Your task to perform on an android device: Open internet settings Image 0: 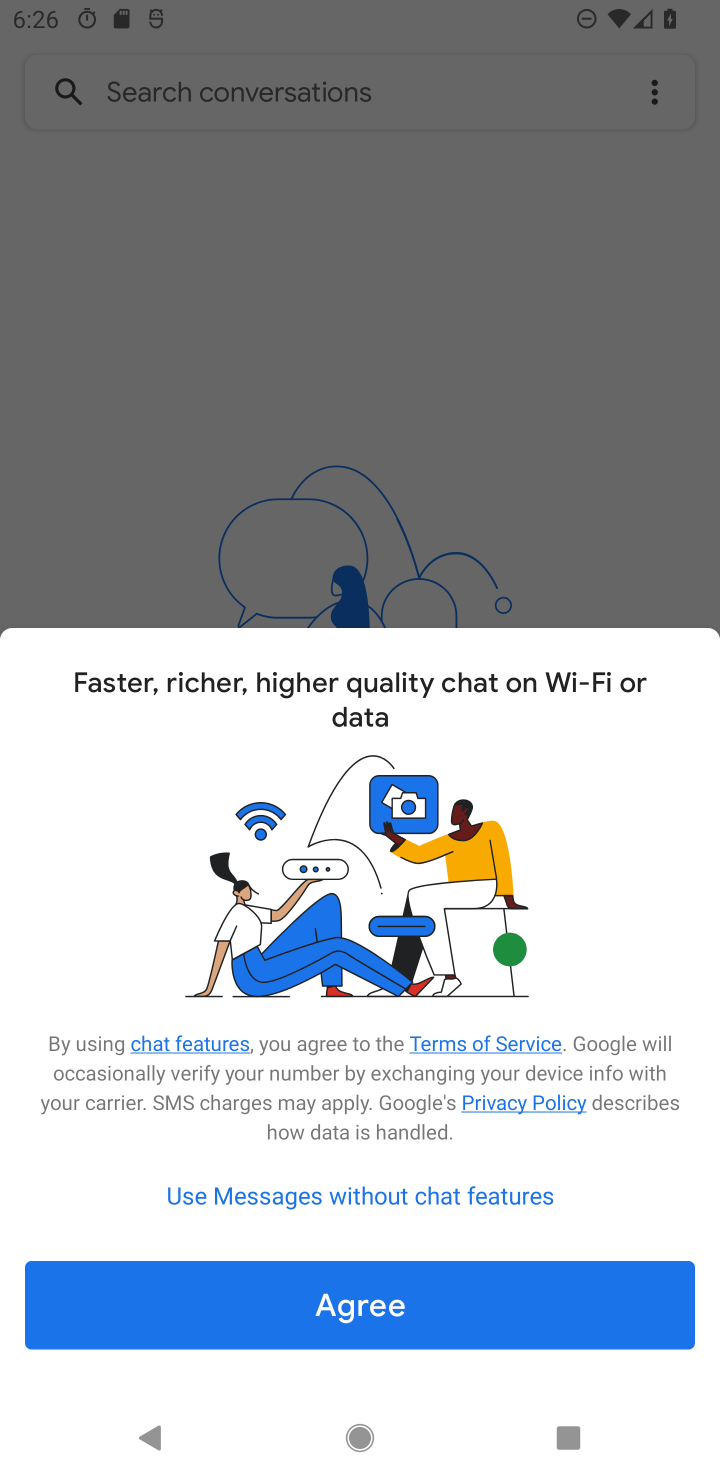
Step 0: drag from (392, 1083) to (389, 552)
Your task to perform on an android device: Open internet settings Image 1: 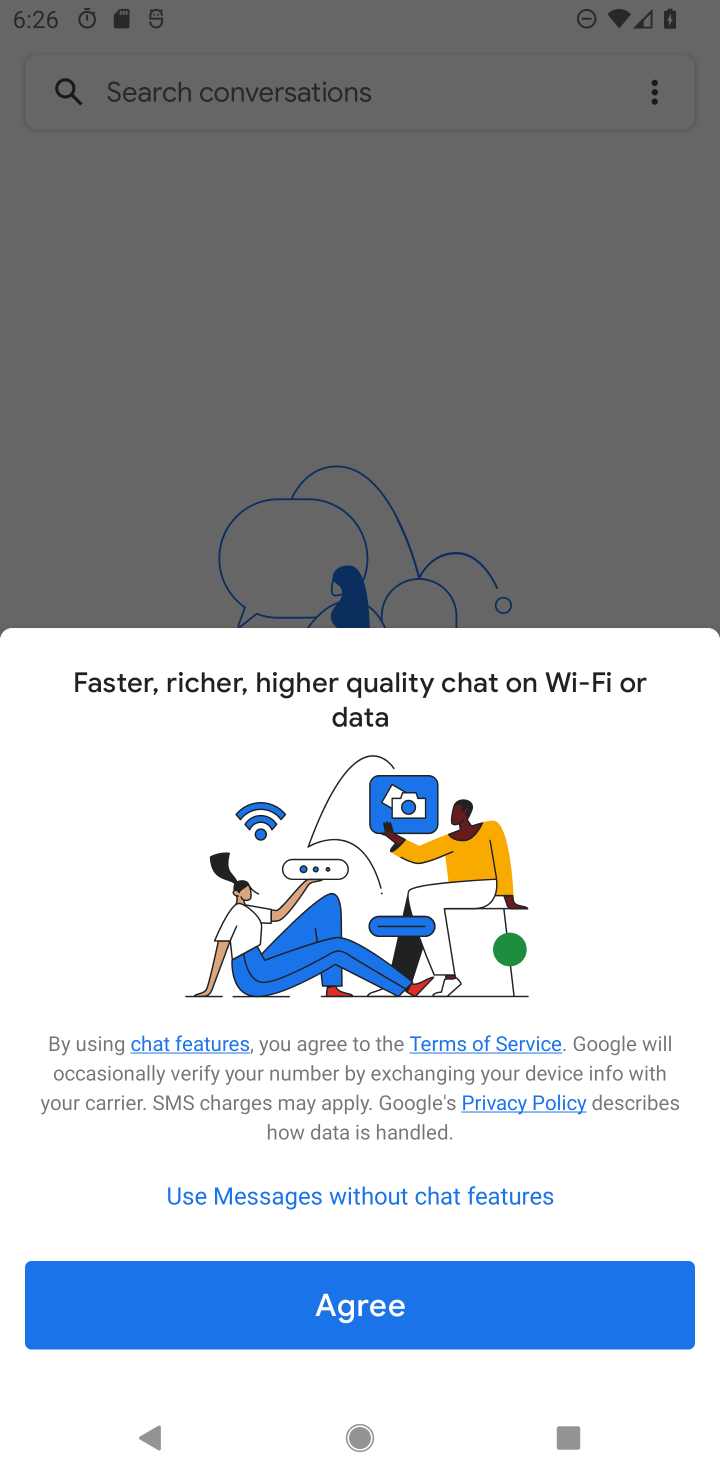
Step 1: drag from (371, 889) to (442, 521)
Your task to perform on an android device: Open internet settings Image 2: 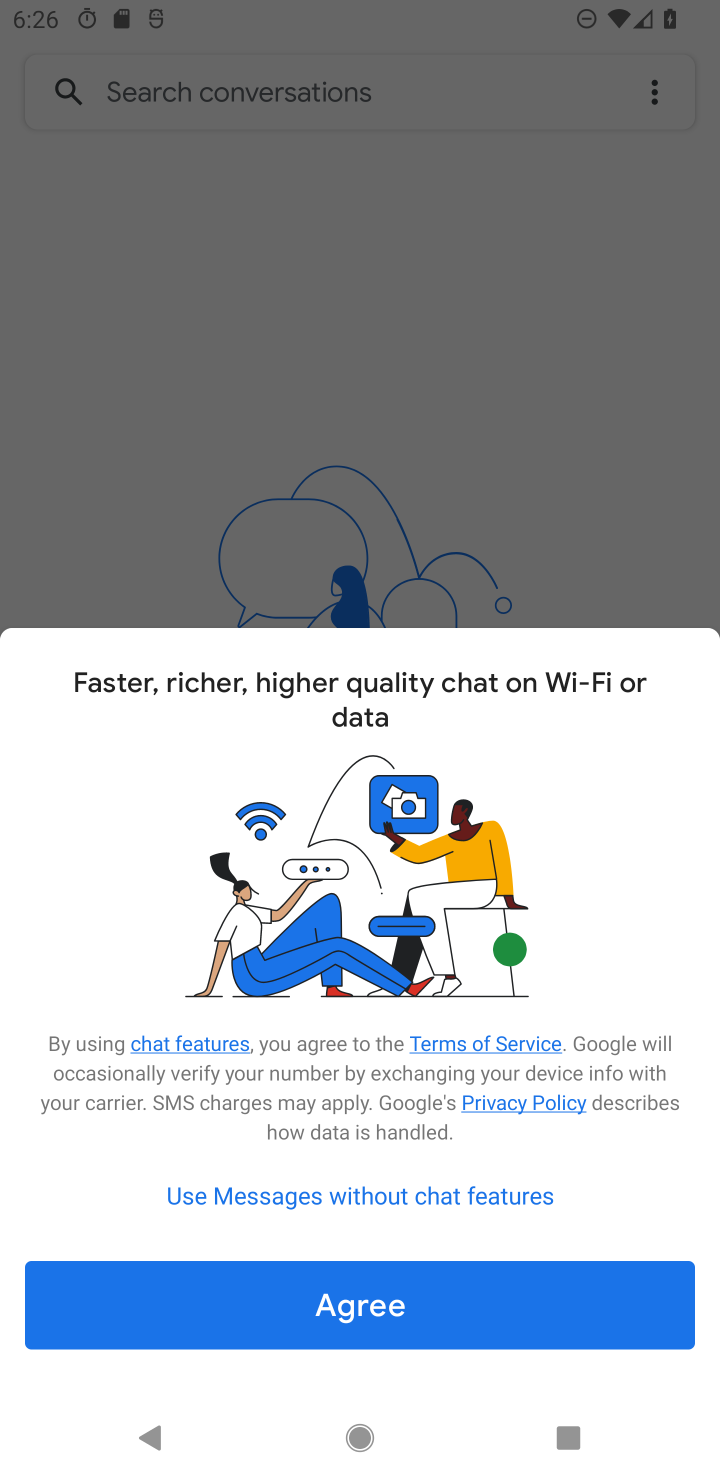
Step 2: drag from (347, 691) to (366, 158)
Your task to perform on an android device: Open internet settings Image 3: 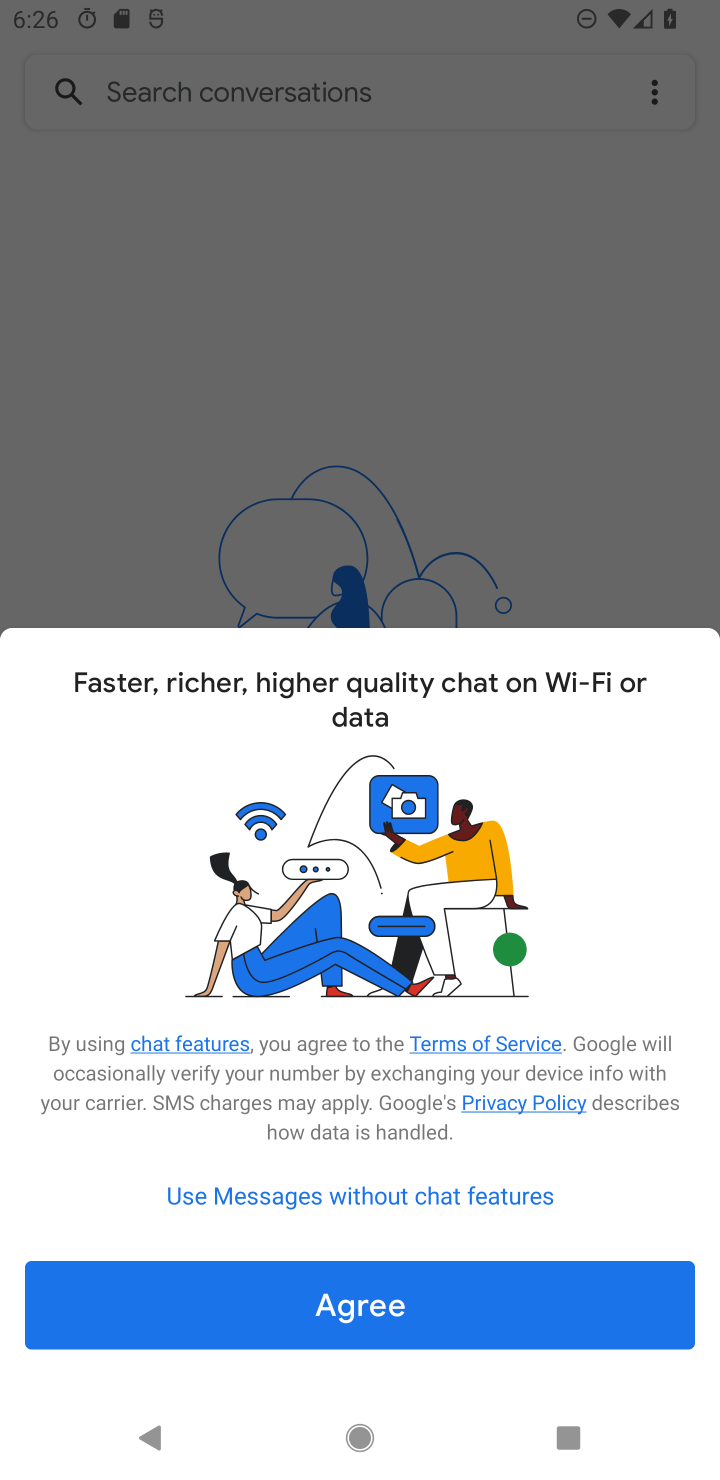
Step 3: press home button
Your task to perform on an android device: Open internet settings Image 4: 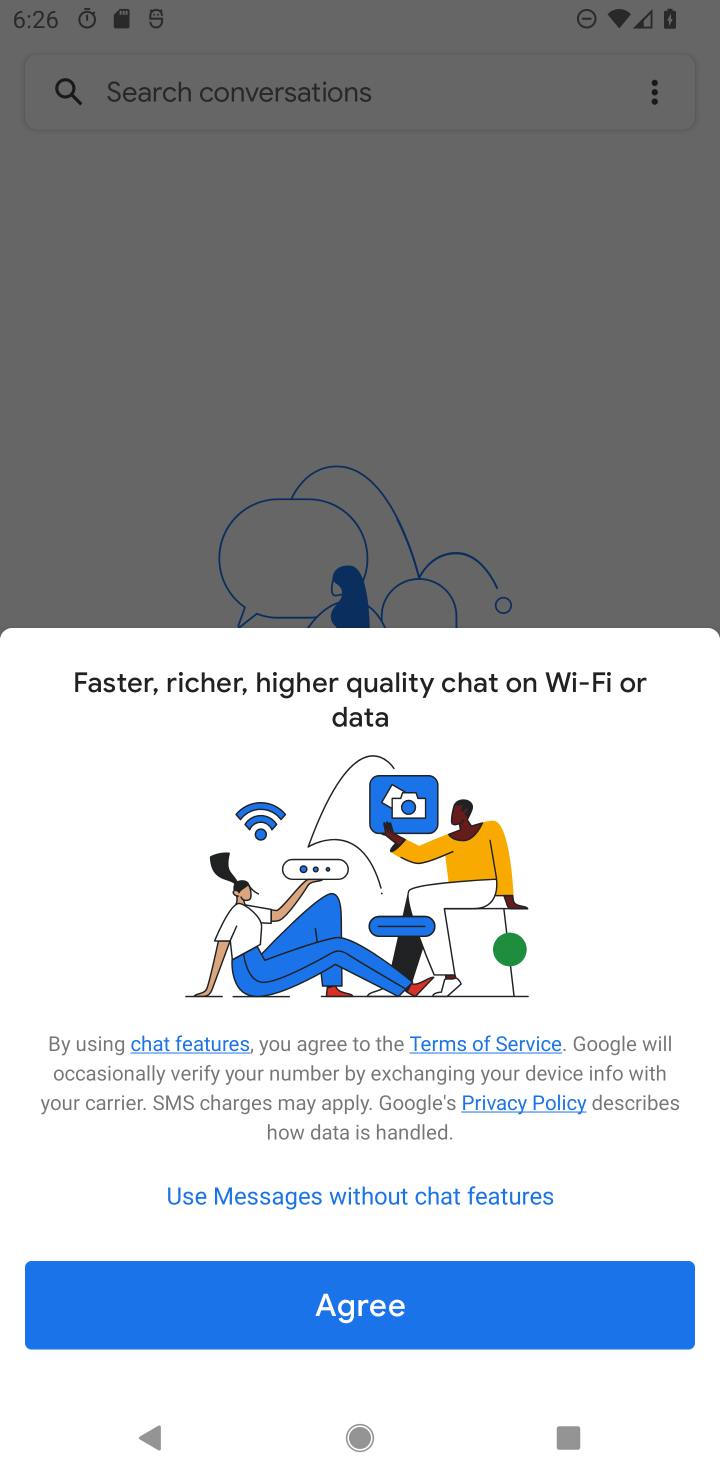
Step 4: press home button
Your task to perform on an android device: Open internet settings Image 5: 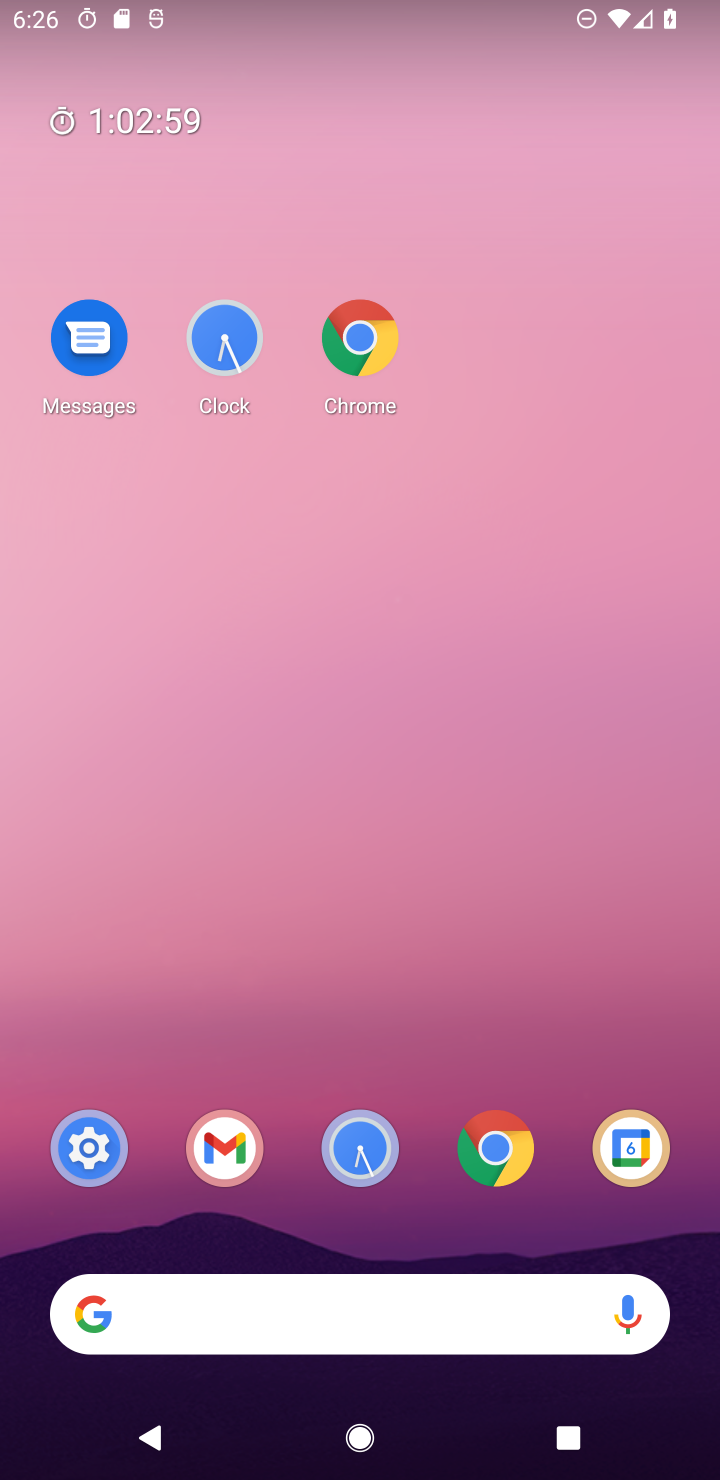
Step 5: click (449, 401)
Your task to perform on an android device: Open internet settings Image 6: 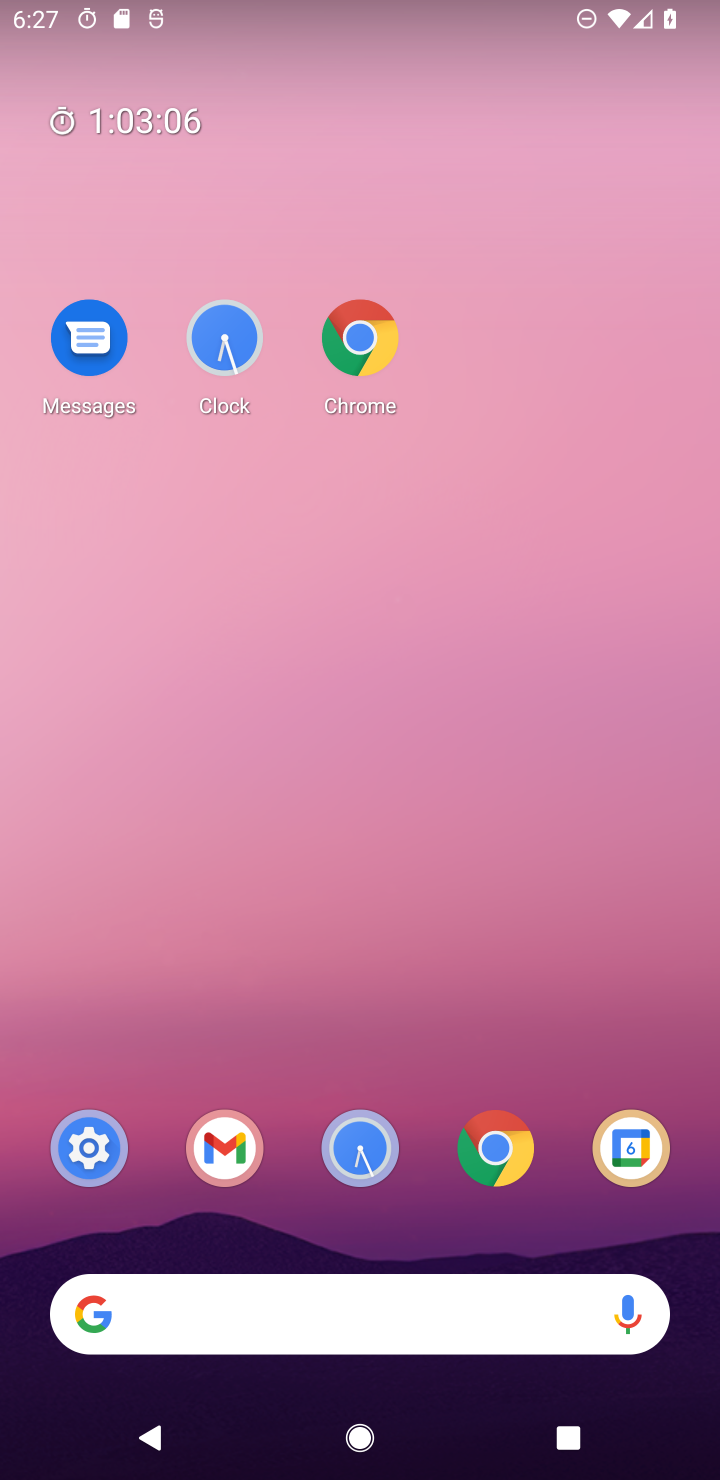
Step 6: drag from (425, 1191) to (465, 353)
Your task to perform on an android device: Open internet settings Image 7: 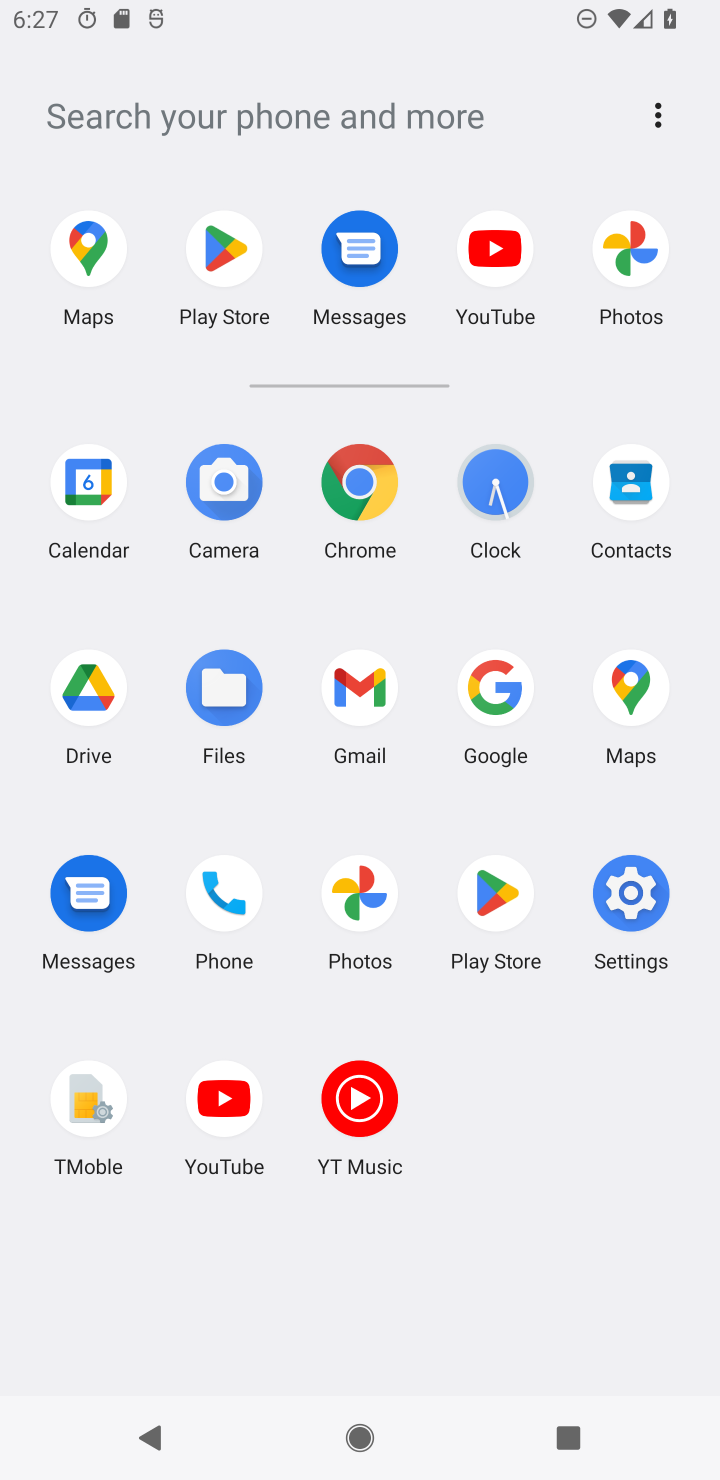
Step 7: drag from (394, 1079) to (423, 543)
Your task to perform on an android device: Open internet settings Image 8: 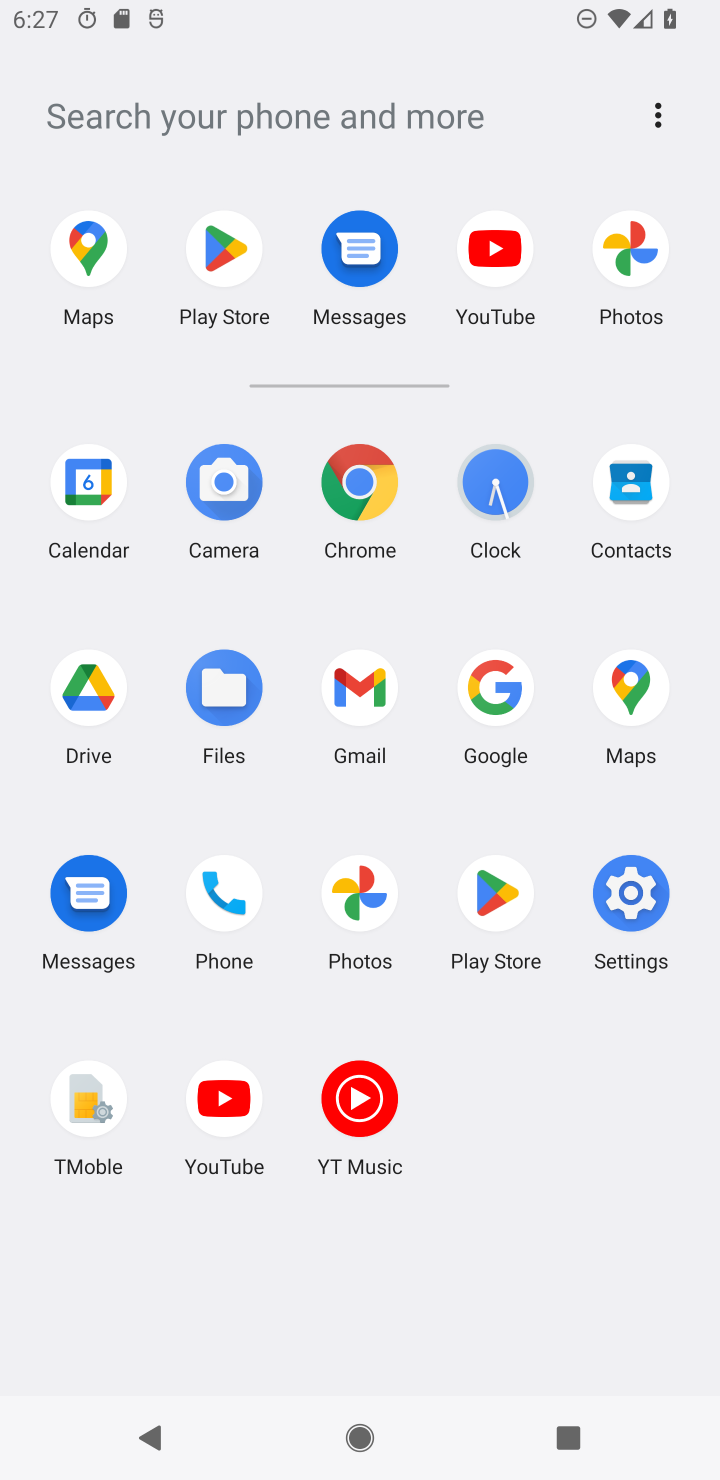
Step 8: click (617, 882)
Your task to perform on an android device: Open internet settings Image 9: 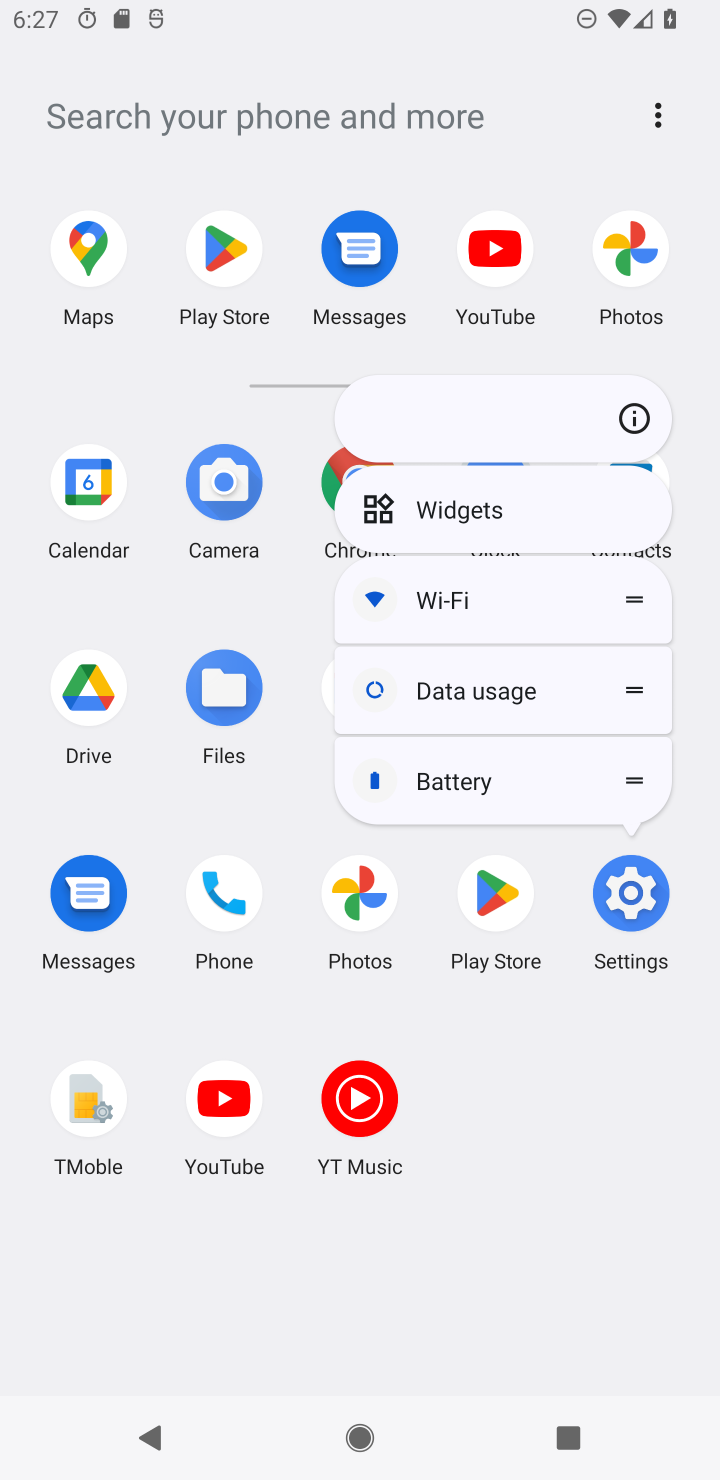
Step 9: click (629, 409)
Your task to perform on an android device: Open internet settings Image 10: 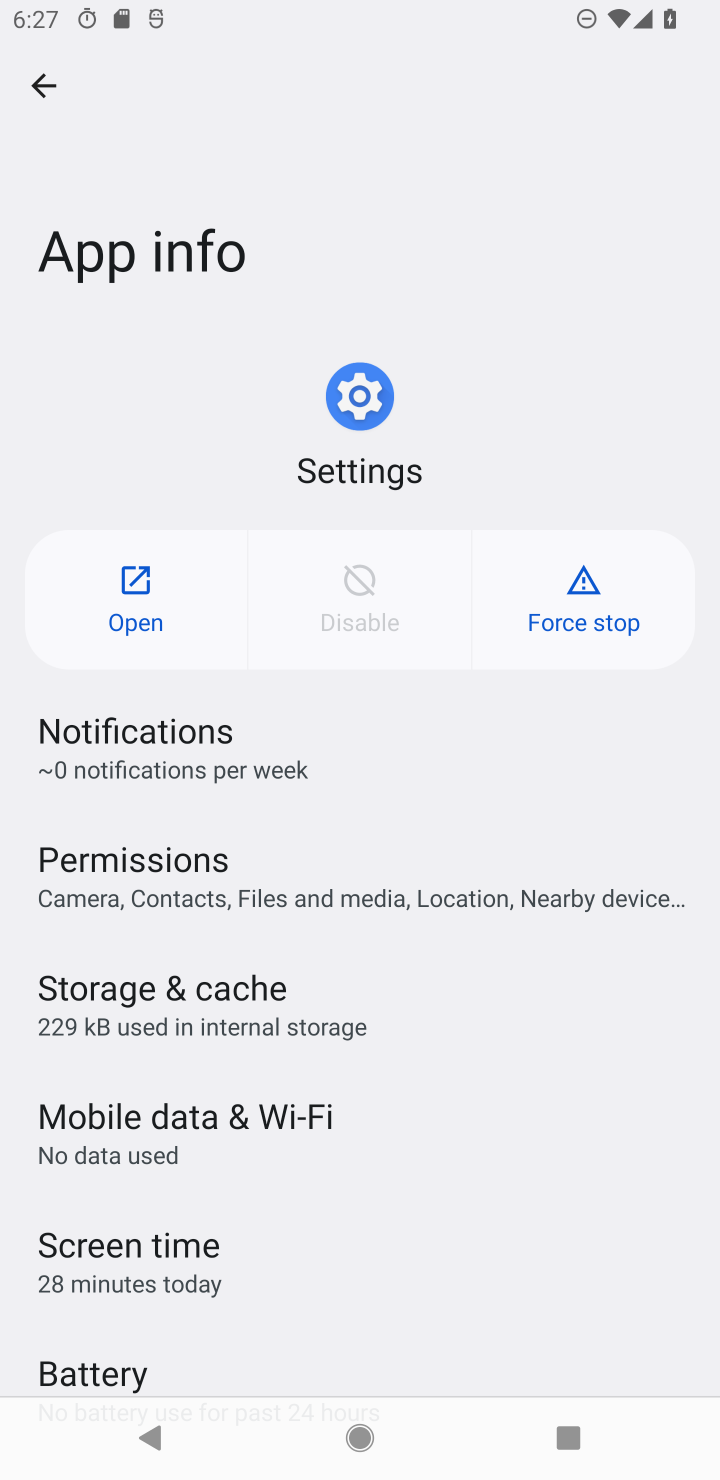
Step 10: click (129, 569)
Your task to perform on an android device: Open internet settings Image 11: 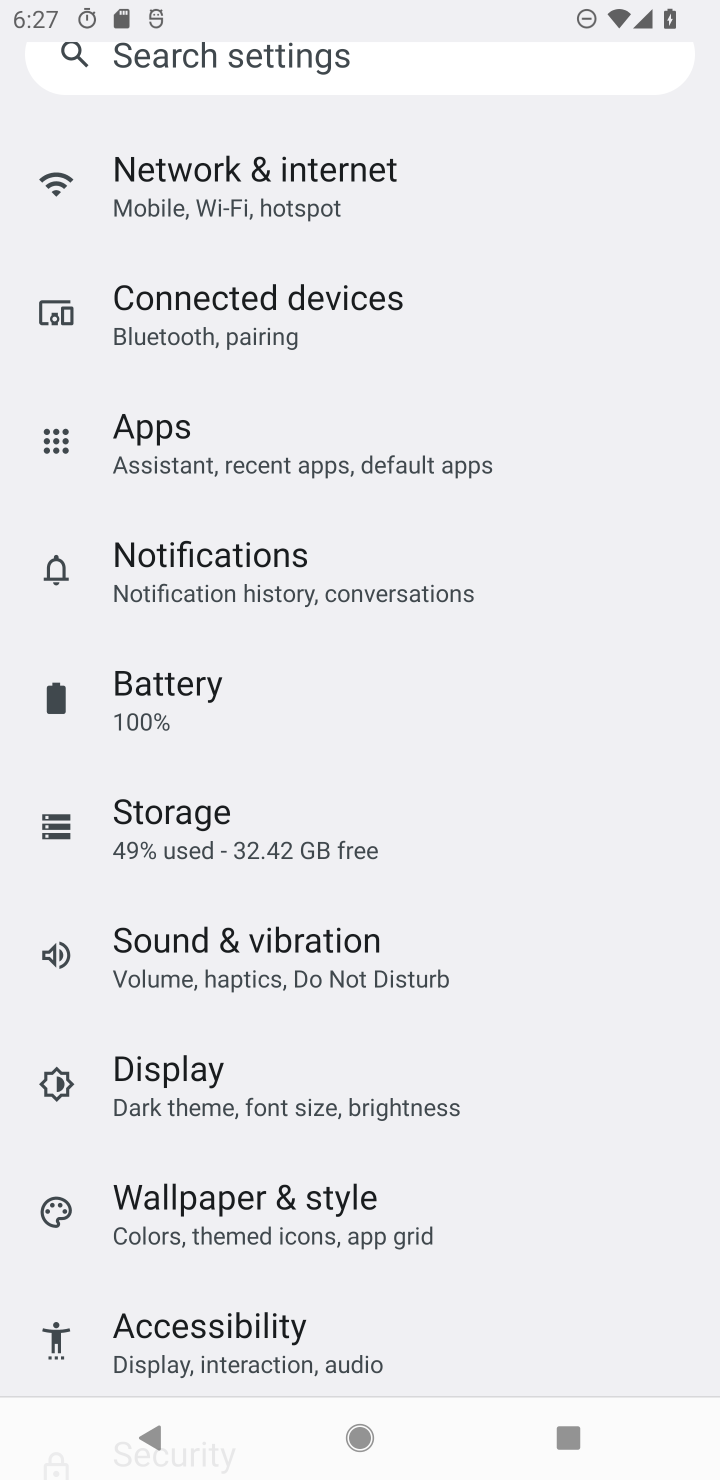
Step 11: click (289, 189)
Your task to perform on an android device: Open internet settings Image 12: 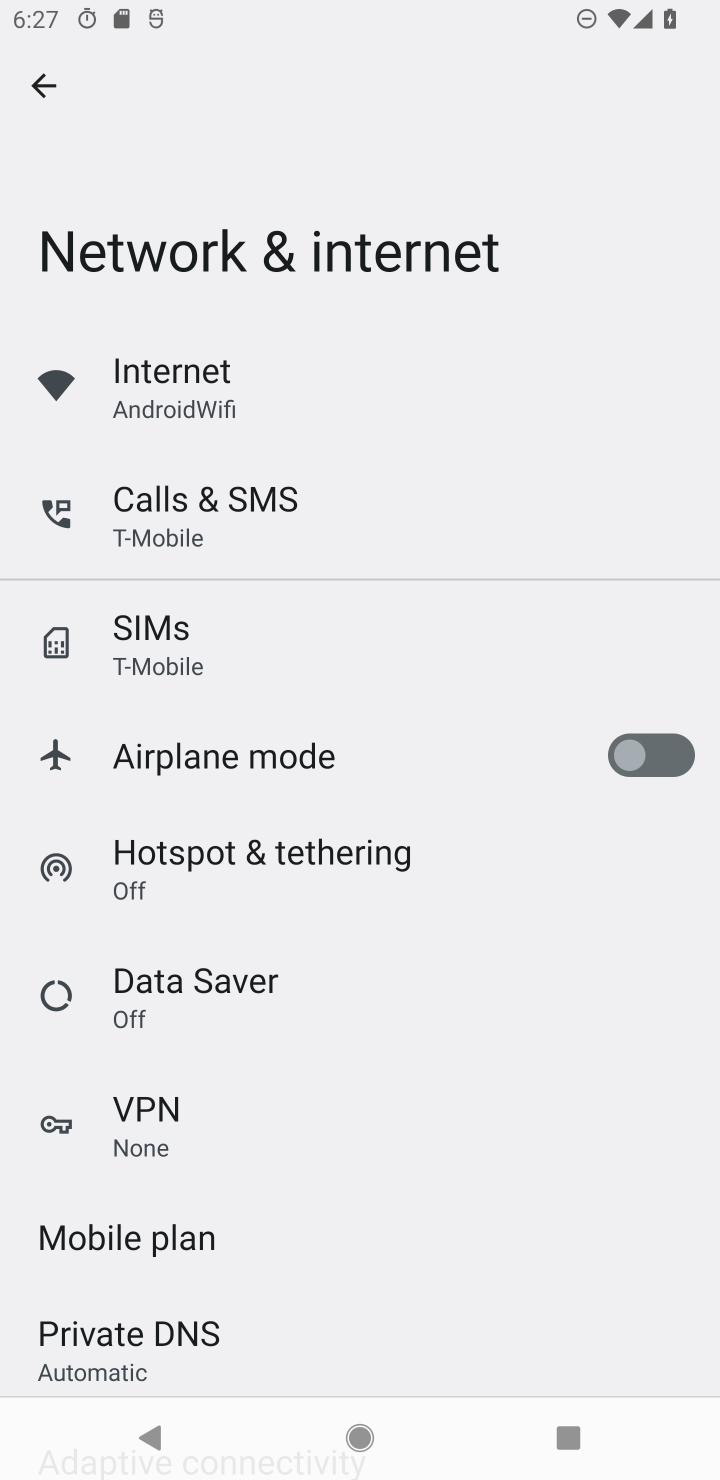
Step 12: drag from (417, 1029) to (395, 377)
Your task to perform on an android device: Open internet settings Image 13: 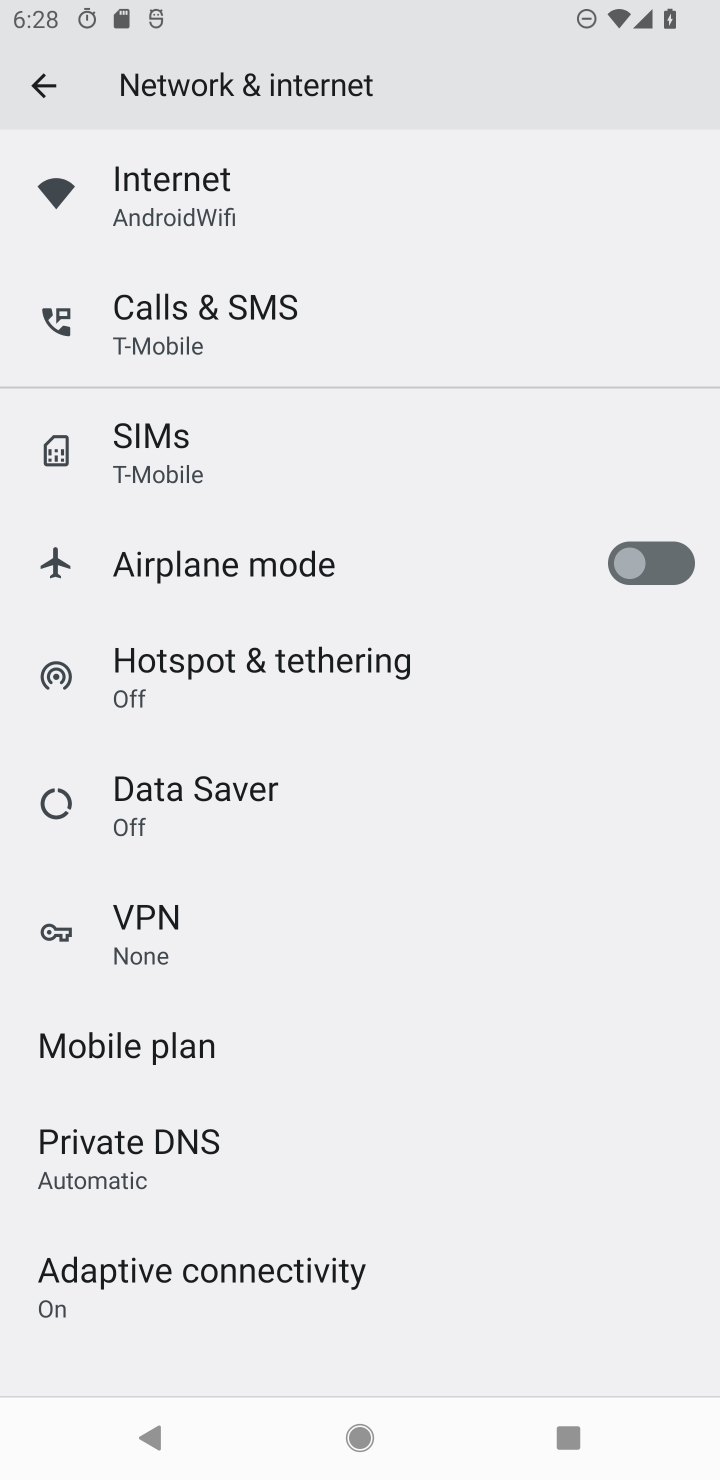
Step 13: drag from (454, 1050) to (382, 1443)
Your task to perform on an android device: Open internet settings Image 14: 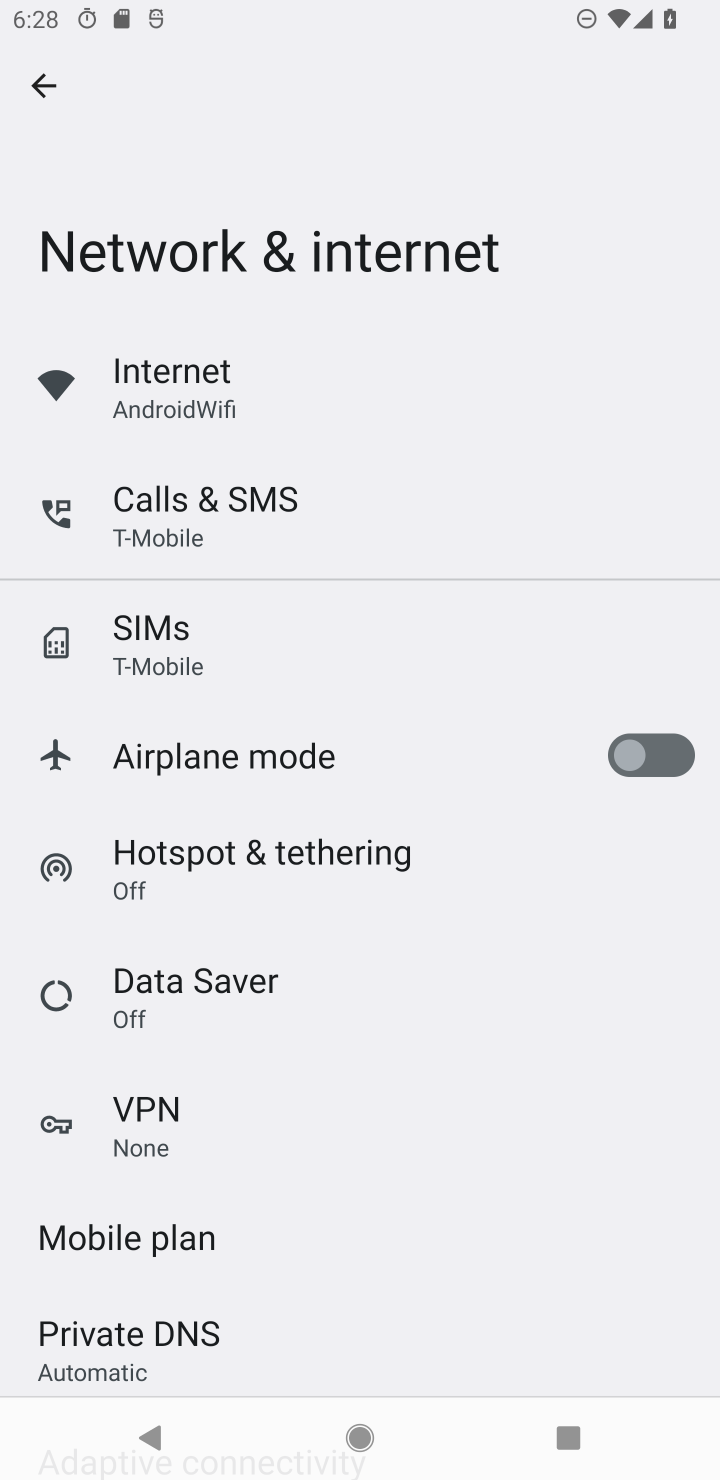
Step 14: click (193, 190)
Your task to perform on an android device: Open internet settings Image 15: 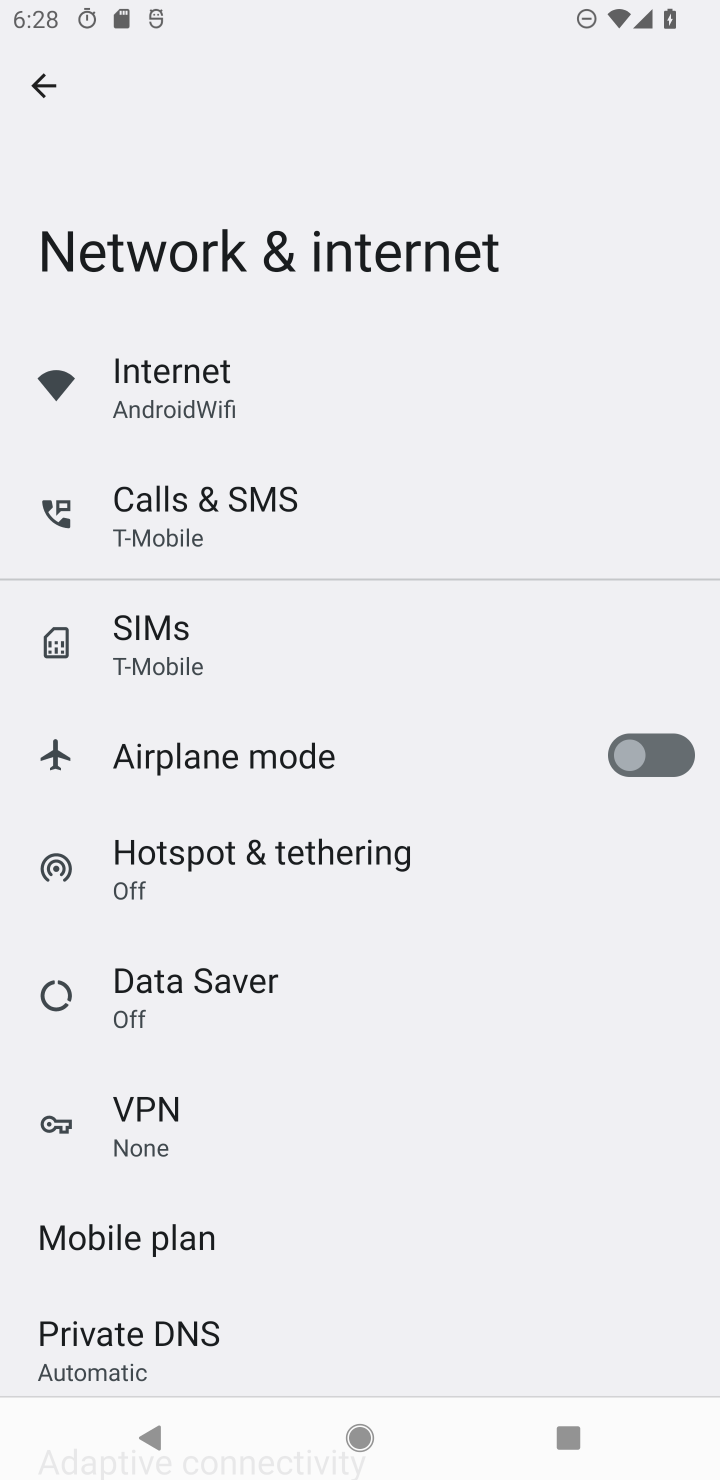
Step 15: click (250, 393)
Your task to perform on an android device: Open internet settings Image 16: 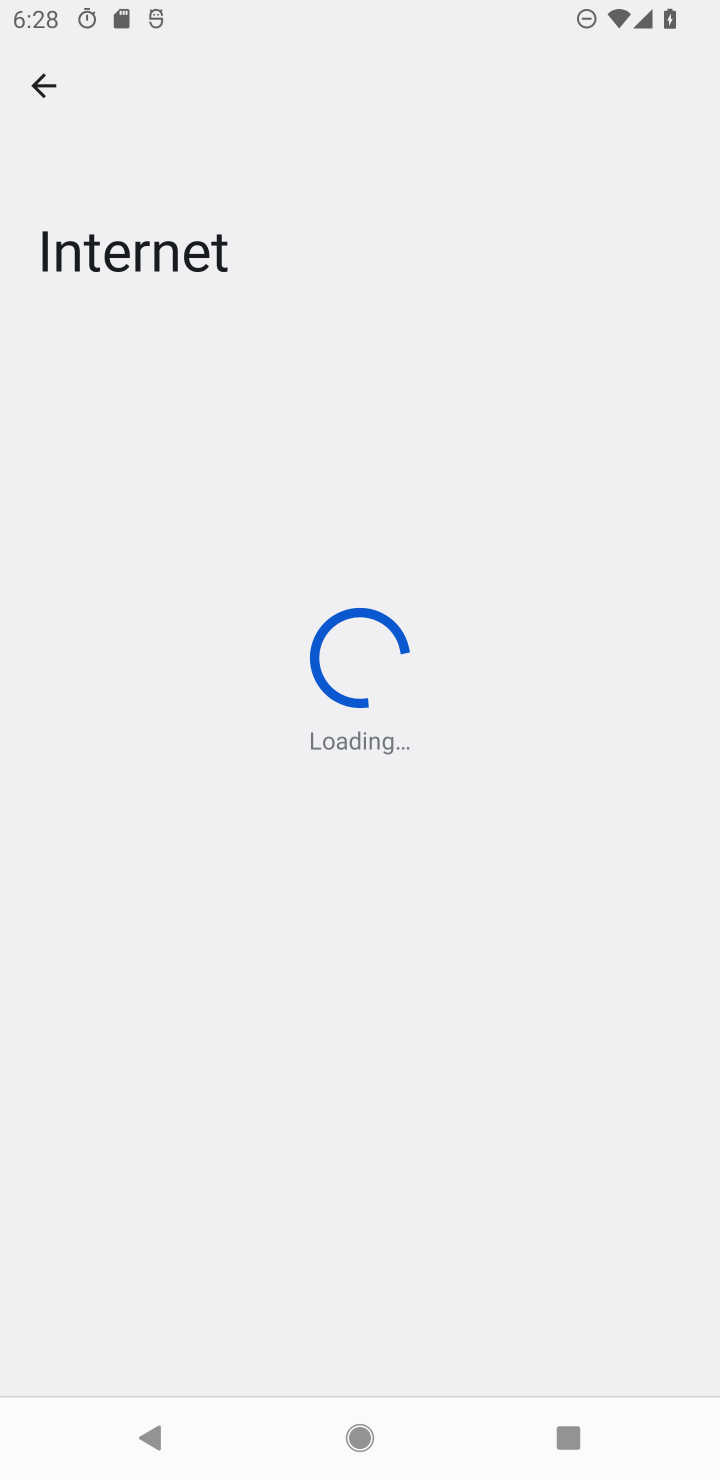
Step 16: task complete